Your task to perform on an android device: turn on improve location accuracy Image 0: 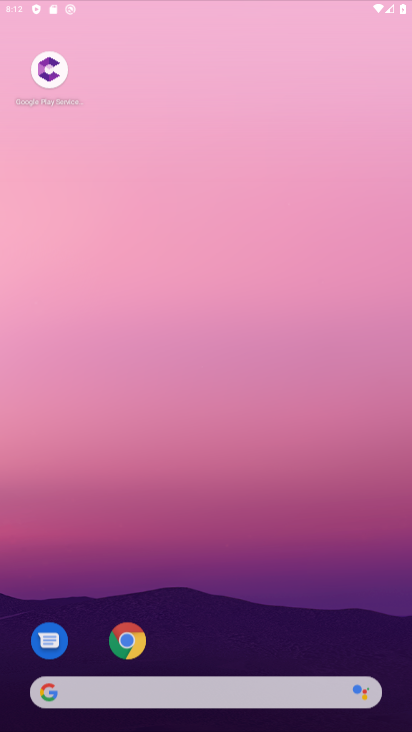
Step 0: click (219, 333)
Your task to perform on an android device: turn on improve location accuracy Image 1: 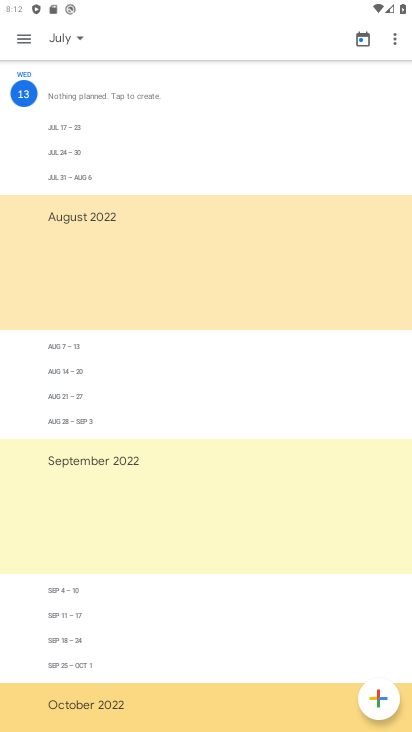
Step 1: press home button
Your task to perform on an android device: turn on improve location accuracy Image 2: 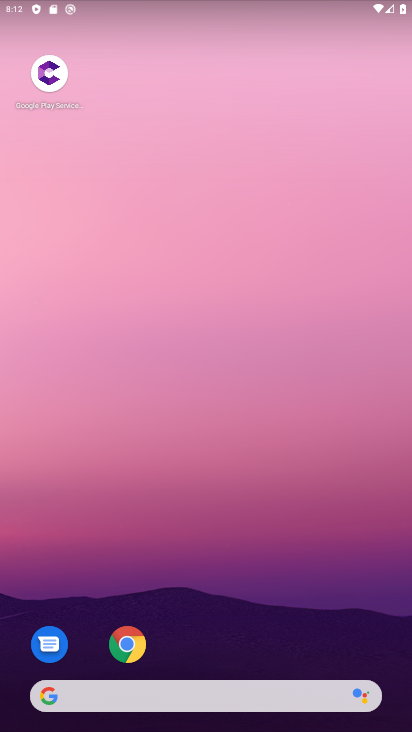
Step 2: drag from (254, 715) to (250, 286)
Your task to perform on an android device: turn on improve location accuracy Image 3: 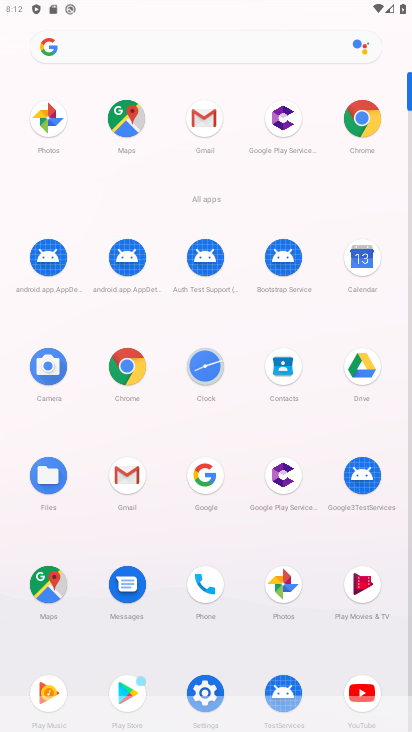
Step 3: click (203, 687)
Your task to perform on an android device: turn on improve location accuracy Image 4: 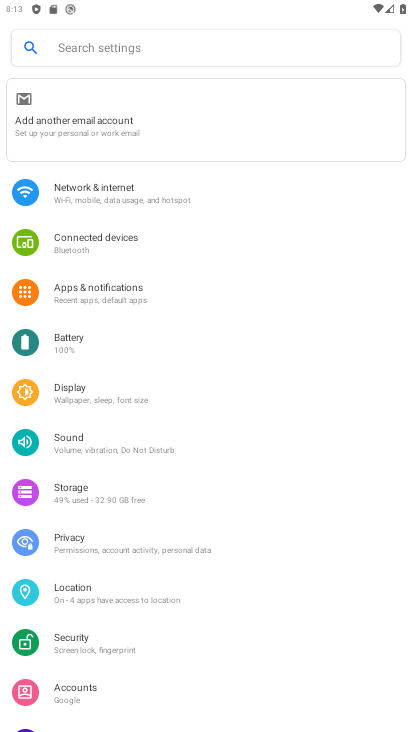
Step 4: click (83, 589)
Your task to perform on an android device: turn on improve location accuracy Image 5: 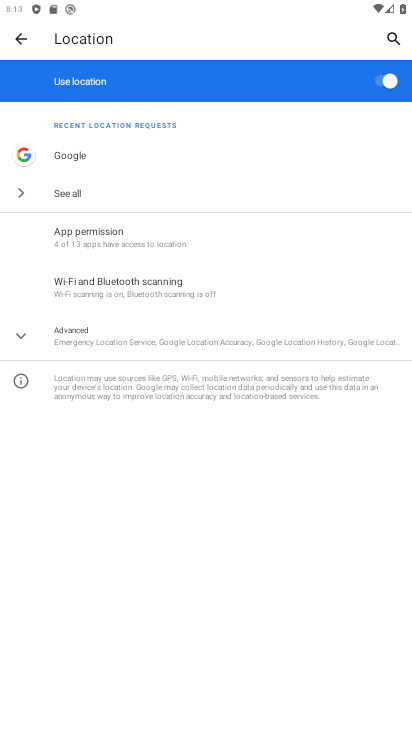
Step 5: click (134, 333)
Your task to perform on an android device: turn on improve location accuracy Image 6: 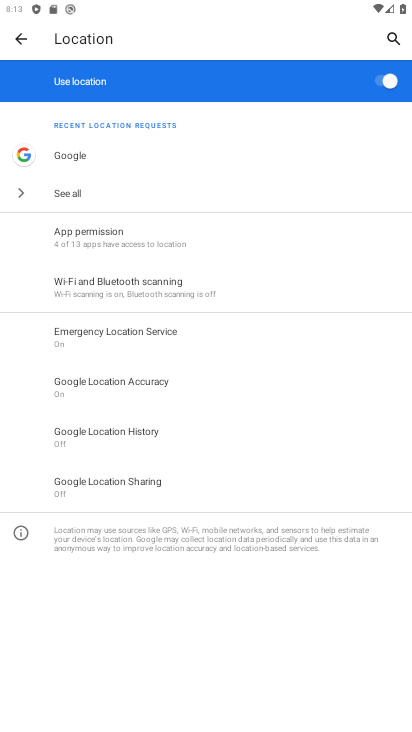
Step 6: click (141, 383)
Your task to perform on an android device: turn on improve location accuracy Image 7: 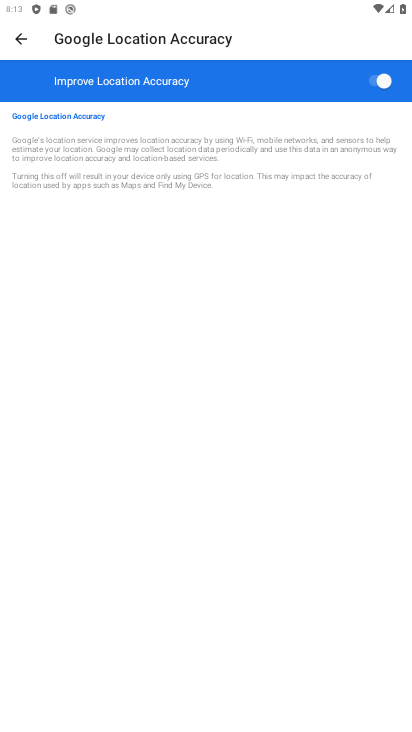
Step 7: task complete